Your task to perform on an android device: Open calendar and show me the first week of next month Image 0: 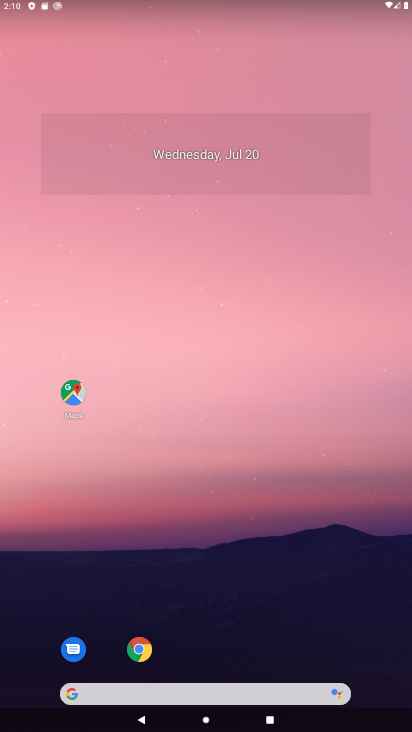
Step 0: drag from (284, 563) to (264, 219)
Your task to perform on an android device: Open calendar and show me the first week of next month Image 1: 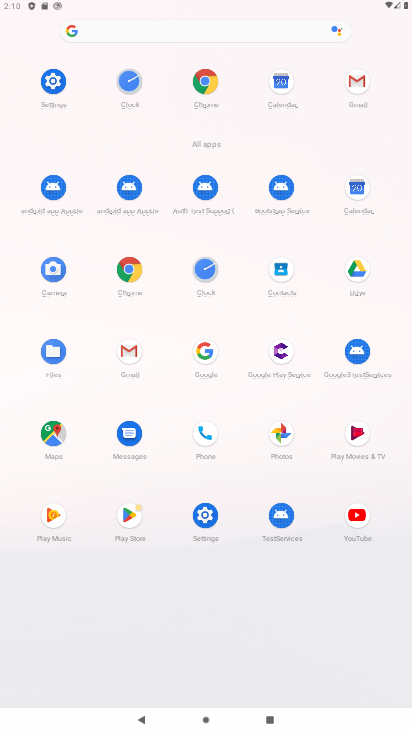
Step 1: click (356, 193)
Your task to perform on an android device: Open calendar and show me the first week of next month Image 2: 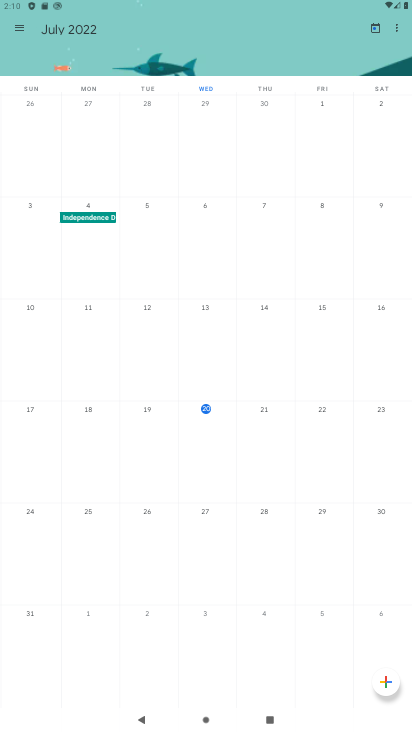
Step 2: task complete